Your task to perform on an android device: delete browsing data in the chrome app Image 0: 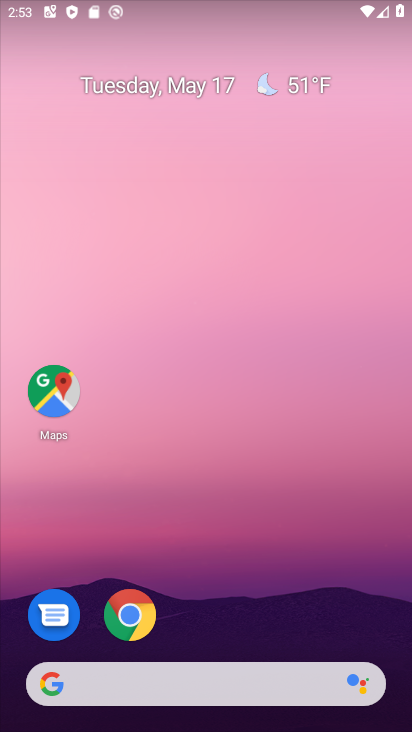
Step 0: click (126, 606)
Your task to perform on an android device: delete browsing data in the chrome app Image 1: 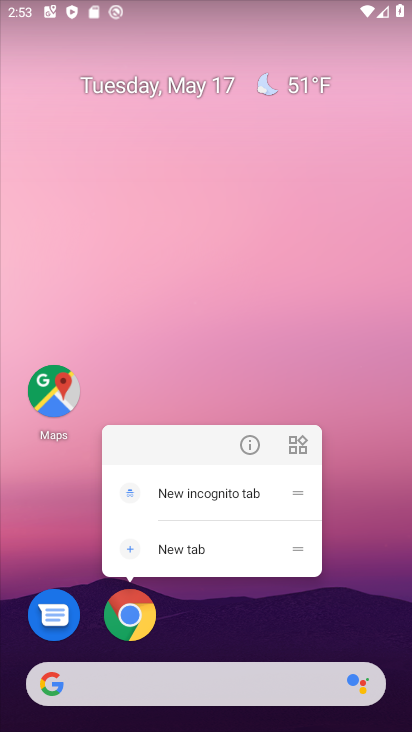
Step 1: click (122, 611)
Your task to perform on an android device: delete browsing data in the chrome app Image 2: 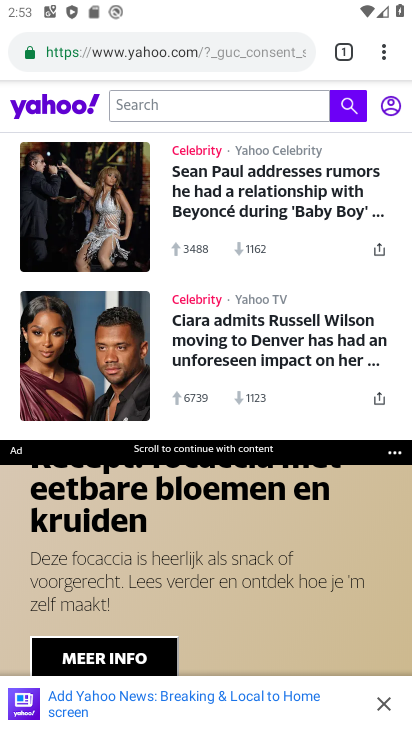
Step 2: click (380, 50)
Your task to perform on an android device: delete browsing data in the chrome app Image 3: 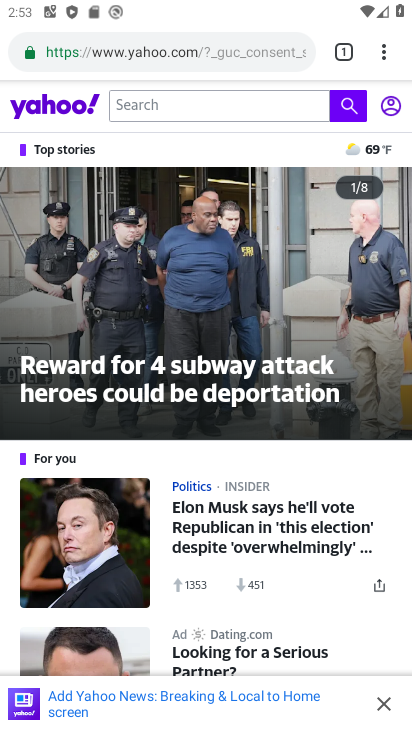
Step 3: click (382, 52)
Your task to perform on an android device: delete browsing data in the chrome app Image 4: 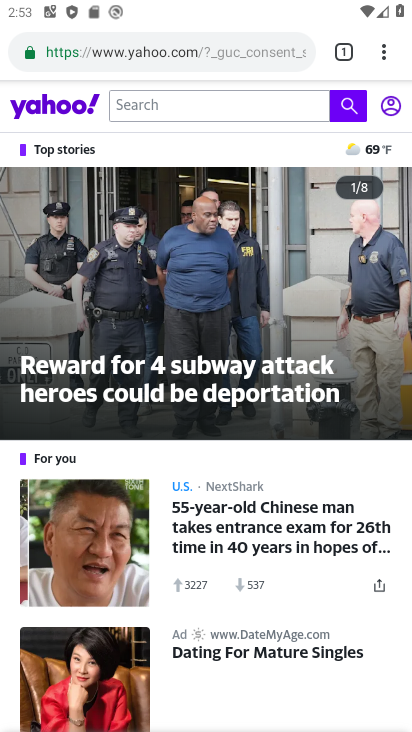
Step 4: click (382, 52)
Your task to perform on an android device: delete browsing data in the chrome app Image 5: 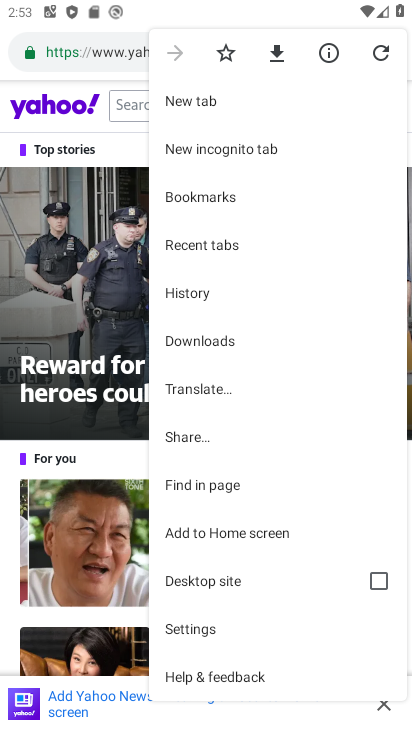
Step 5: click (217, 292)
Your task to perform on an android device: delete browsing data in the chrome app Image 6: 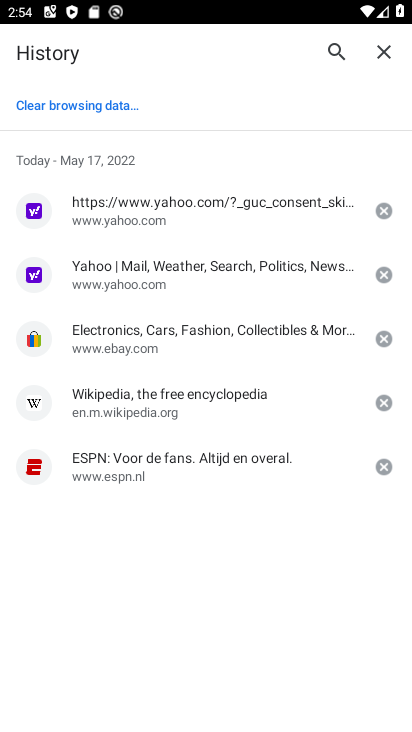
Step 6: click (83, 105)
Your task to perform on an android device: delete browsing data in the chrome app Image 7: 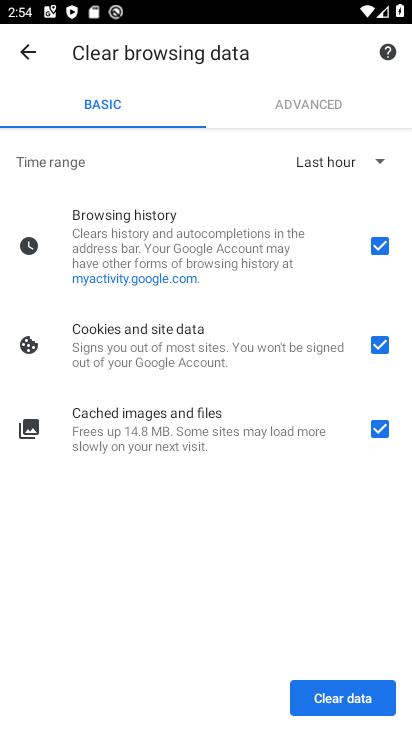
Step 7: click (348, 689)
Your task to perform on an android device: delete browsing data in the chrome app Image 8: 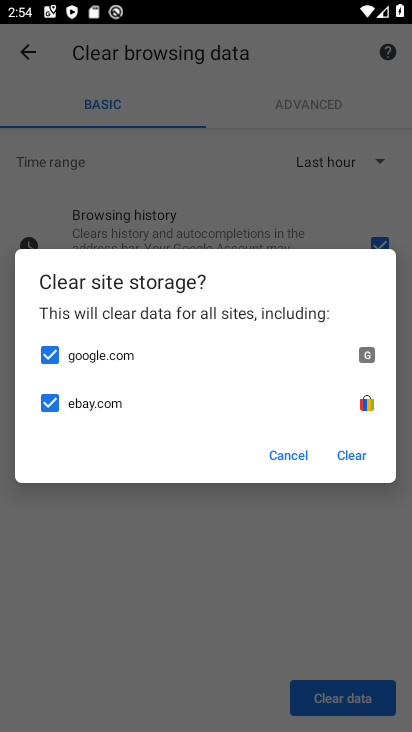
Step 8: click (351, 449)
Your task to perform on an android device: delete browsing data in the chrome app Image 9: 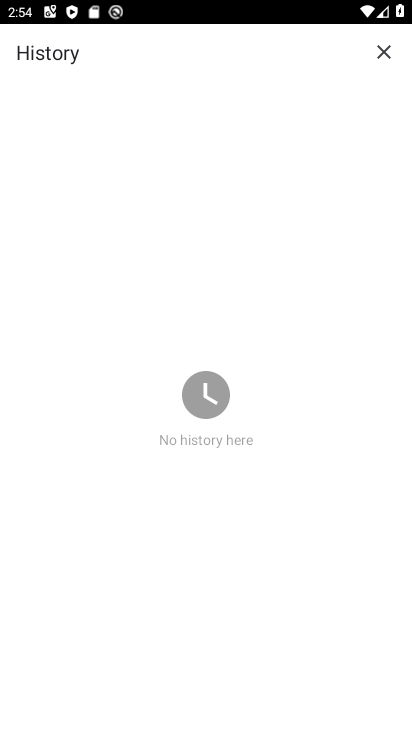
Step 9: task complete